Your task to perform on an android device: Go to settings Image 0: 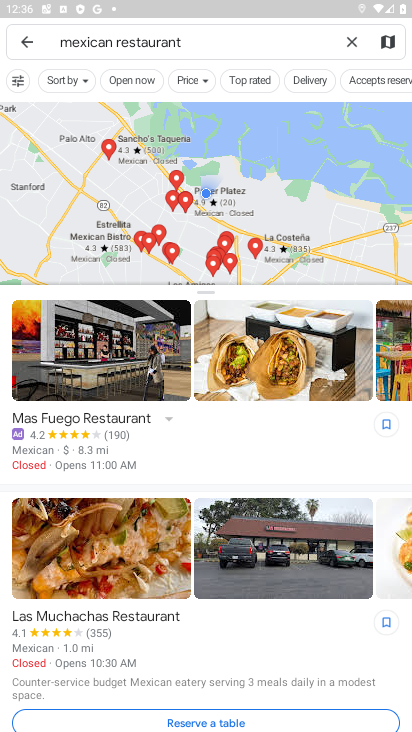
Step 0: press home button
Your task to perform on an android device: Go to settings Image 1: 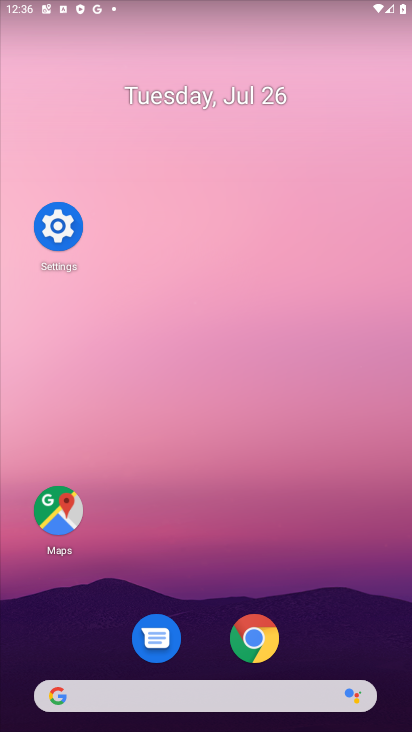
Step 1: click (62, 227)
Your task to perform on an android device: Go to settings Image 2: 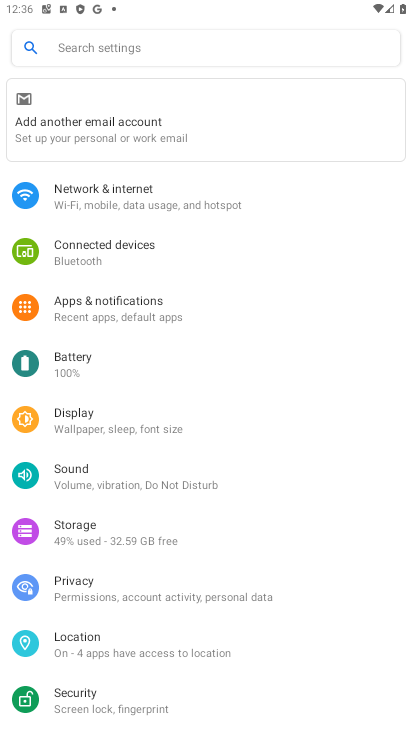
Step 2: task complete